Your task to perform on an android device: open app "The Home Depot" (install if not already installed) Image 0: 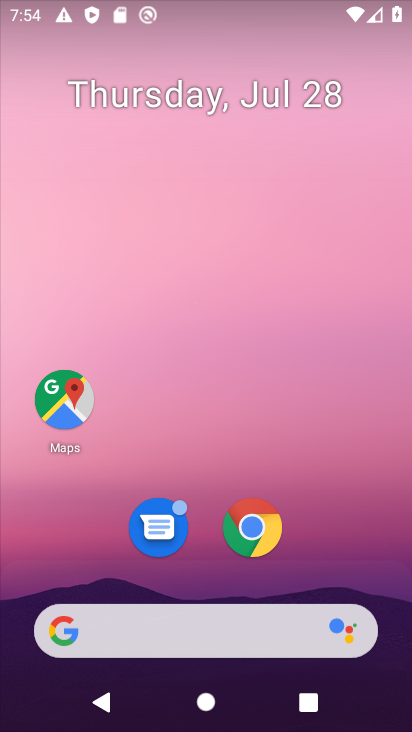
Step 0: drag from (223, 625) to (262, 21)
Your task to perform on an android device: open app "The Home Depot" (install if not already installed) Image 1: 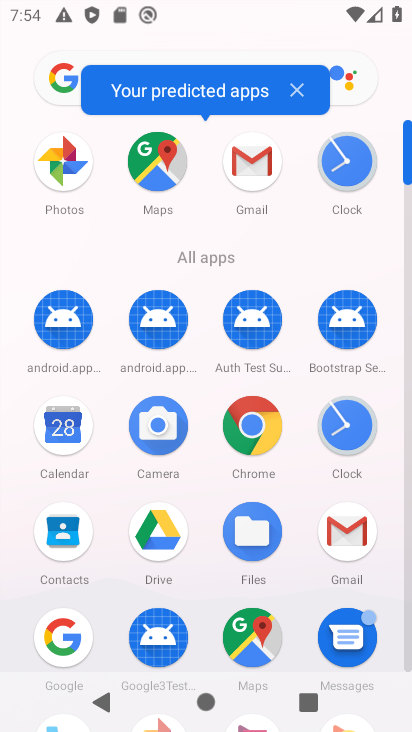
Step 1: drag from (204, 610) to (285, 40)
Your task to perform on an android device: open app "The Home Depot" (install if not already installed) Image 2: 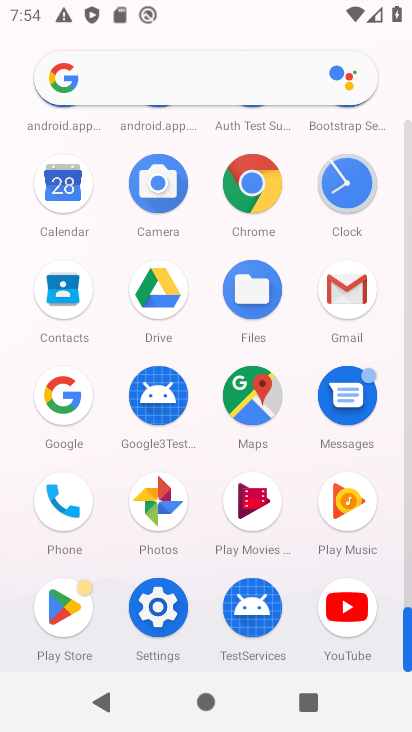
Step 2: click (63, 616)
Your task to perform on an android device: open app "The Home Depot" (install if not already installed) Image 3: 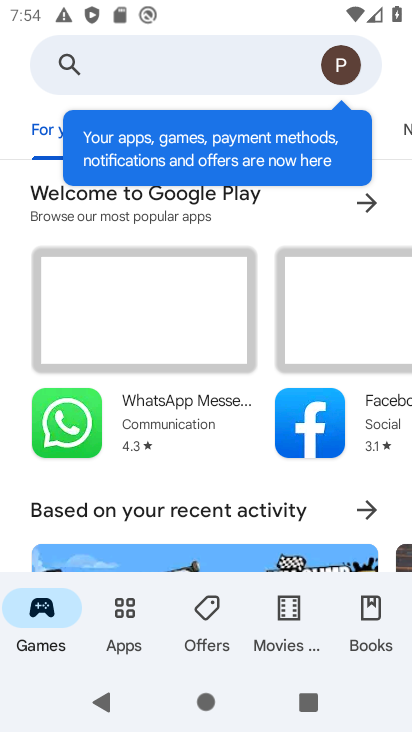
Step 3: click (210, 61)
Your task to perform on an android device: open app "The Home Depot" (install if not already installed) Image 4: 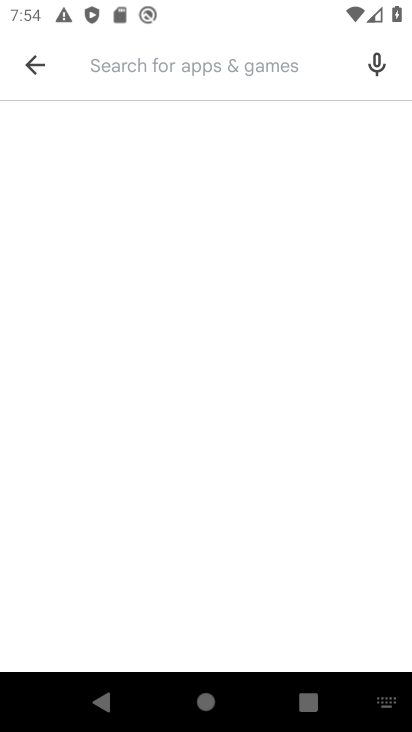
Step 4: type "the home depot"
Your task to perform on an android device: open app "The Home Depot" (install if not already installed) Image 5: 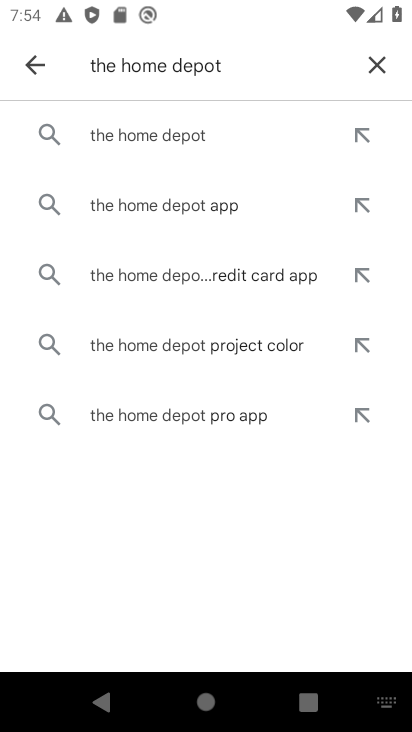
Step 5: click (129, 123)
Your task to perform on an android device: open app "The Home Depot" (install if not already installed) Image 6: 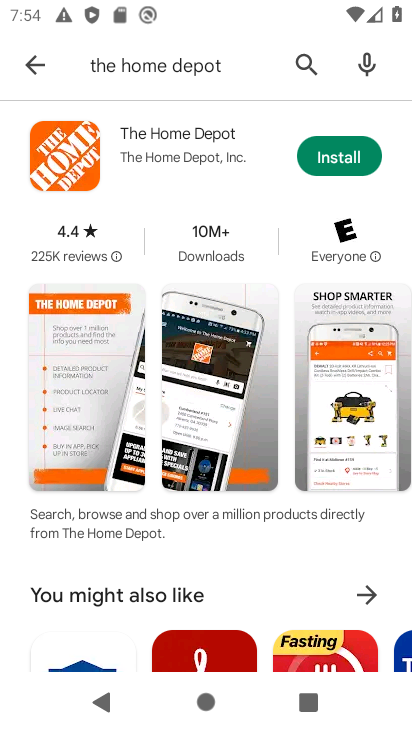
Step 6: click (347, 154)
Your task to perform on an android device: open app "The Home Depot" (install if not already installed) Image 7: 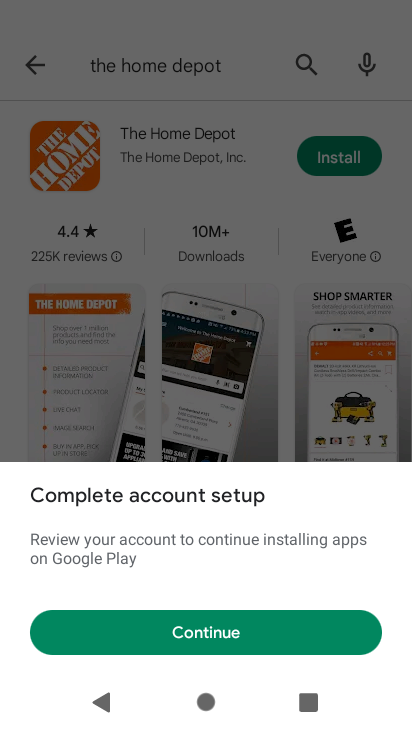
Step 7: click (149, 626)
Your task to perform on an android device: open app "The Home Depot" (install if not already installed) Image 8: 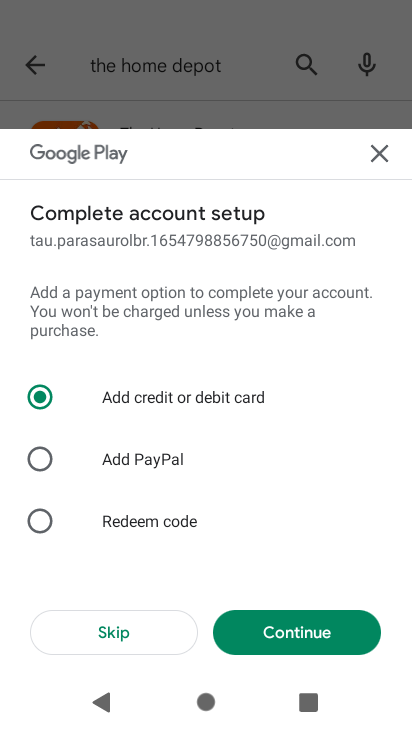
Step 8: click (97, 630)
Your task to perform on an android device: open app "The Home Depot" (install if not already installed) Image 9: 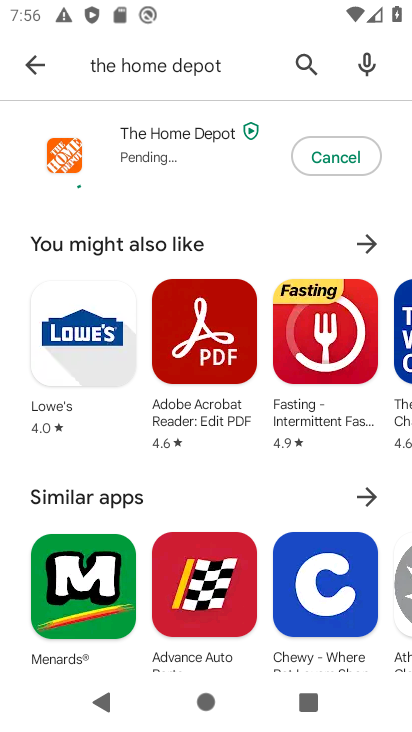
Step 9: click (31, 50)
Your task to perform on an android device: open app "The Home Depot" (install if not already installed) Image 10: 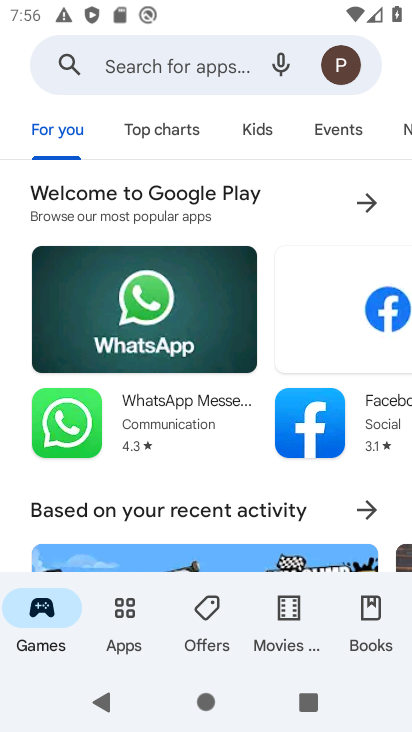
Step 10: click (168, 67)
Your task to perform on an android device: open app "The Home Depot" (install if not already installed) Image 11: 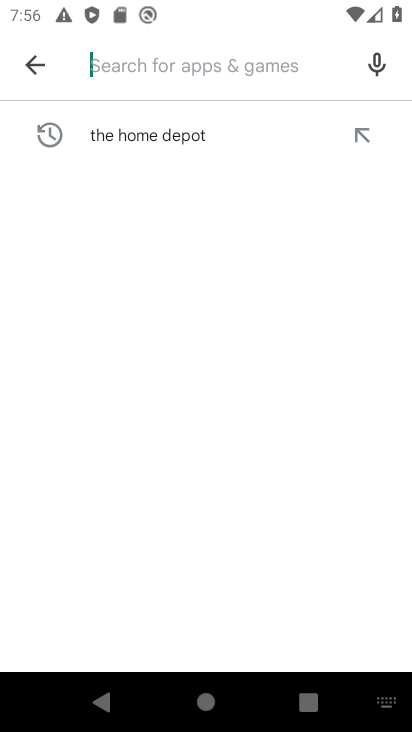
Step 11: click (125, 123)
Your task to perform on an android device: open app "The Home Depot" (install if not already installed) Image 12: 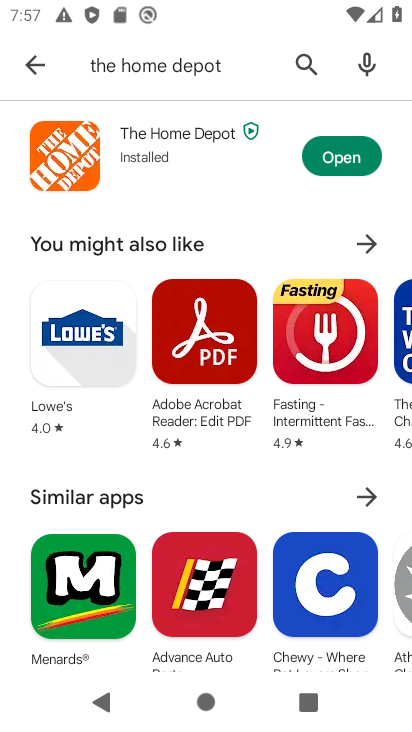
Step 12: click (328, 158)
Your task to perform on an android device: open app "The Home Depot" (install if not already installed) Image 13: 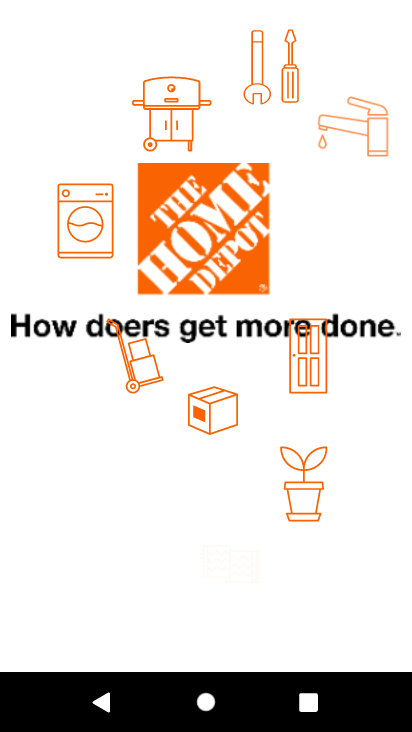
Step 13: task complete